Your task to perform on an android device: open sync settings in chrome Image 0: 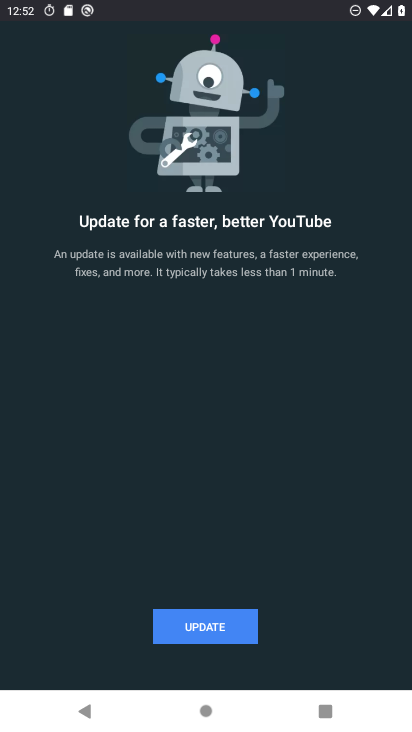
Step 0: press home button
Your task to perform on an android device: open sync settings in chrome Image 1: 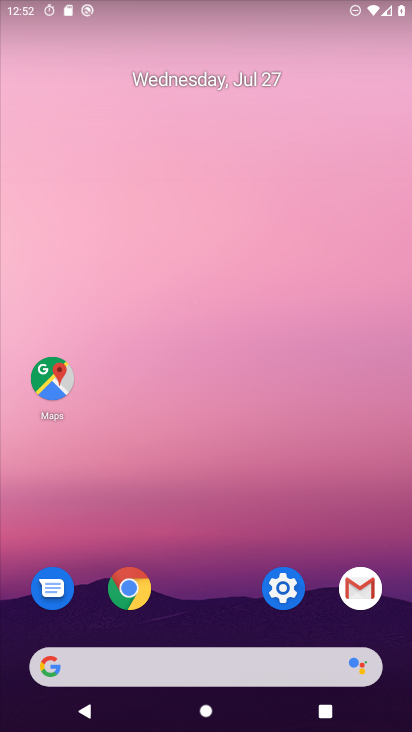
Step 1: click (134, 585)
Your task to perform on an android device: open sync settings in chrome Image 2: 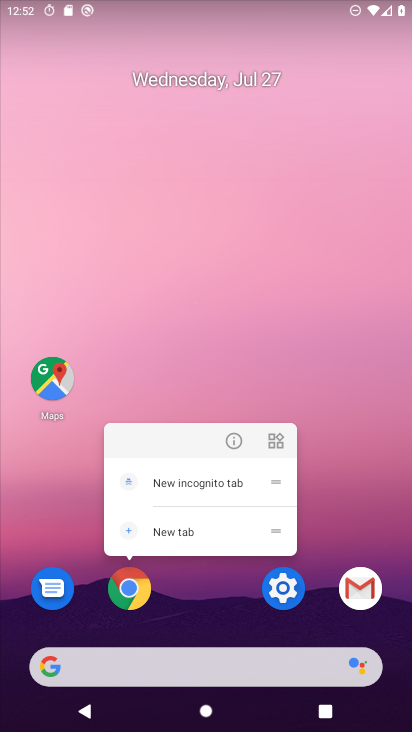
Step 2: click (134, 596)
Your task to perform on an android device: open sync settings in chrome Image 3: 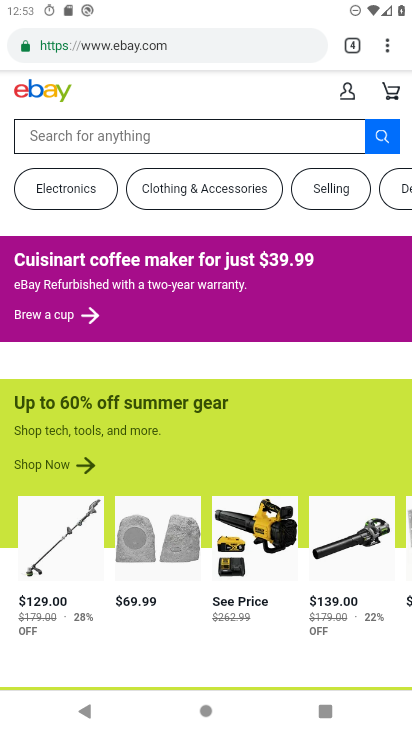
Step 3: click (384, 50)
Your task to perform on an android device: open sync settings in chrome Image 4: 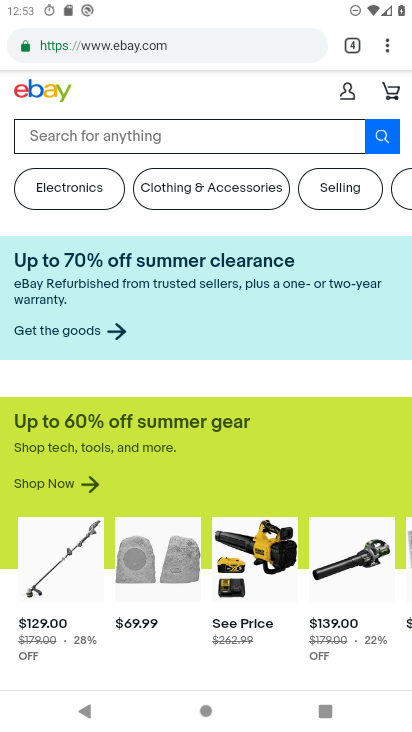
Step 4: click (388, 46)
Your task to perform on an android device: open sync settings in chrome Image 5: 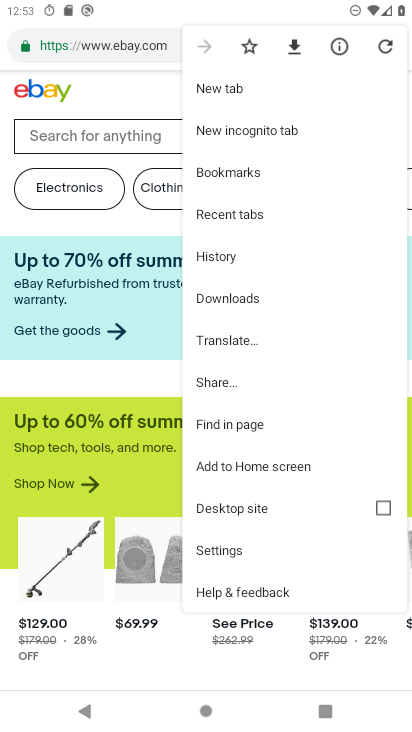
Step 5: click (233, 553)
Your task to perform on an android device: open sync settings in chrome Image 6: 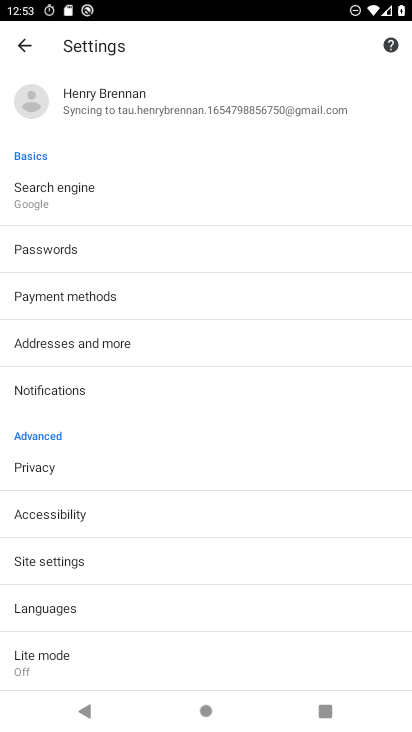
Step 6: drag from (83, 618) to (147, 330)
Your task to perform on an android device: open sync settings in chrome Image 7: 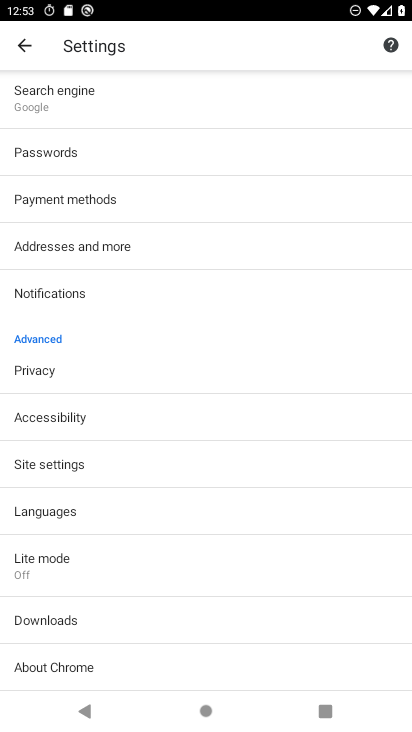
Step 7: drag from (113, 626) to (139, 431)
Your task to perform on an android device: open sync settings in chrome Image 8: 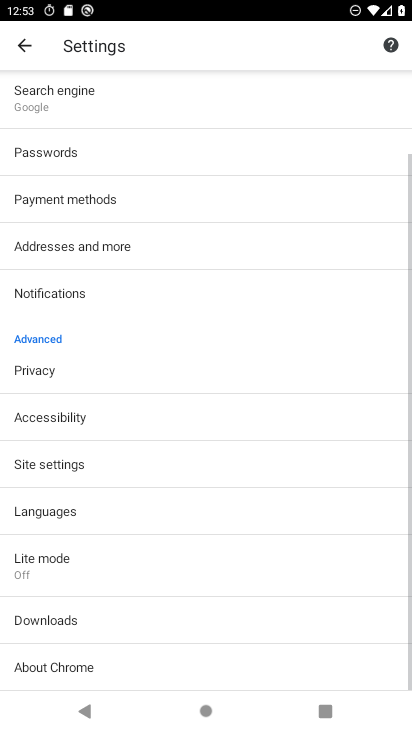
Step 8: click (84, 459)
Your task to perform on an android device: open sync settings in chrome Image 9: 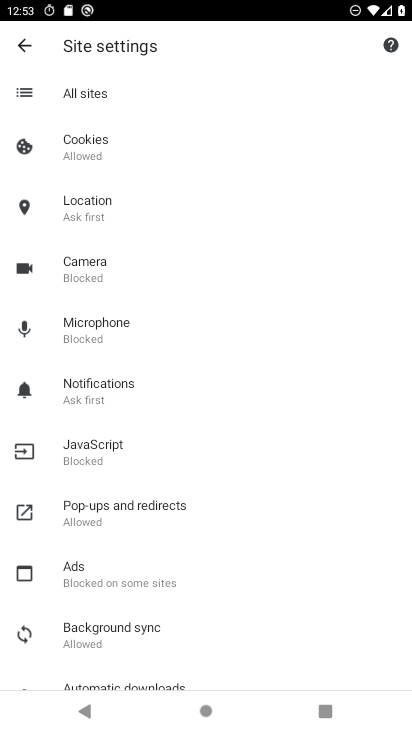
Step 9: click (142, 625)
Your task to perform on an android device: open sync settings in chrome Image 10: 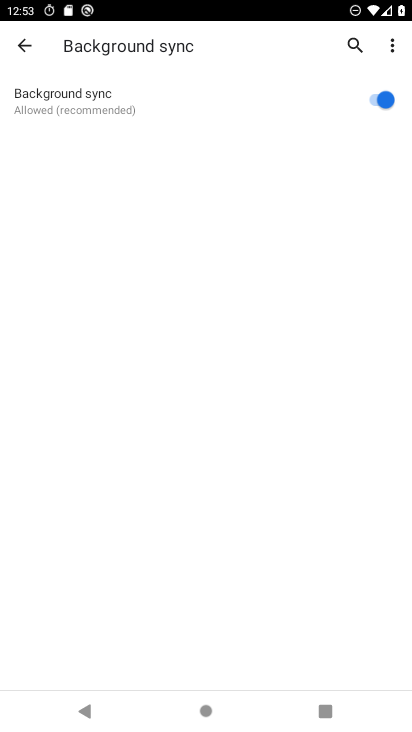
Step 10: task complete